Your task to perform on an android device: search for starred emails in the gmail app Image 0: 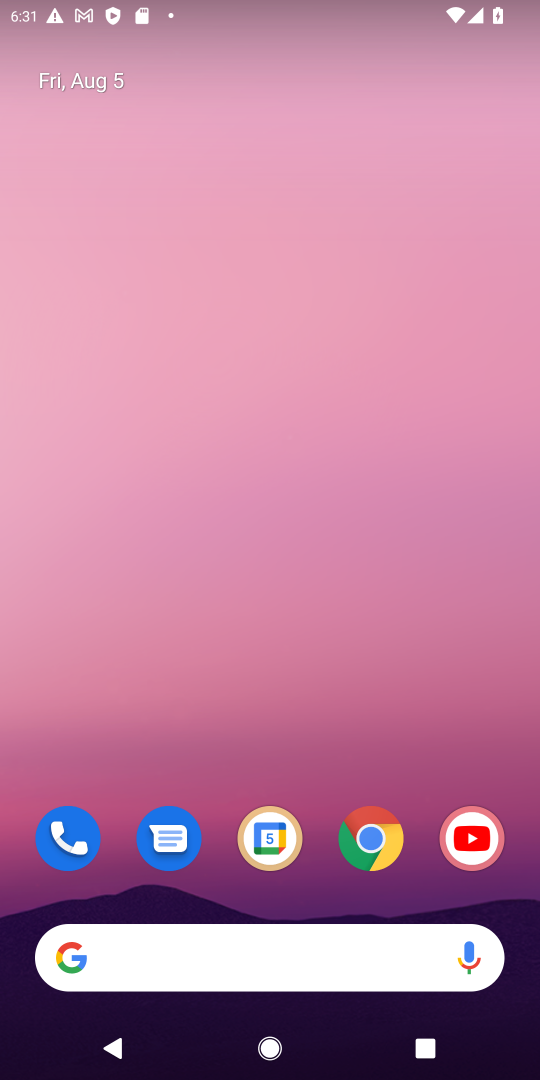
Step 0: press home button
Your task to perform on an android device: search for starred emails in the gmail app Image 1: 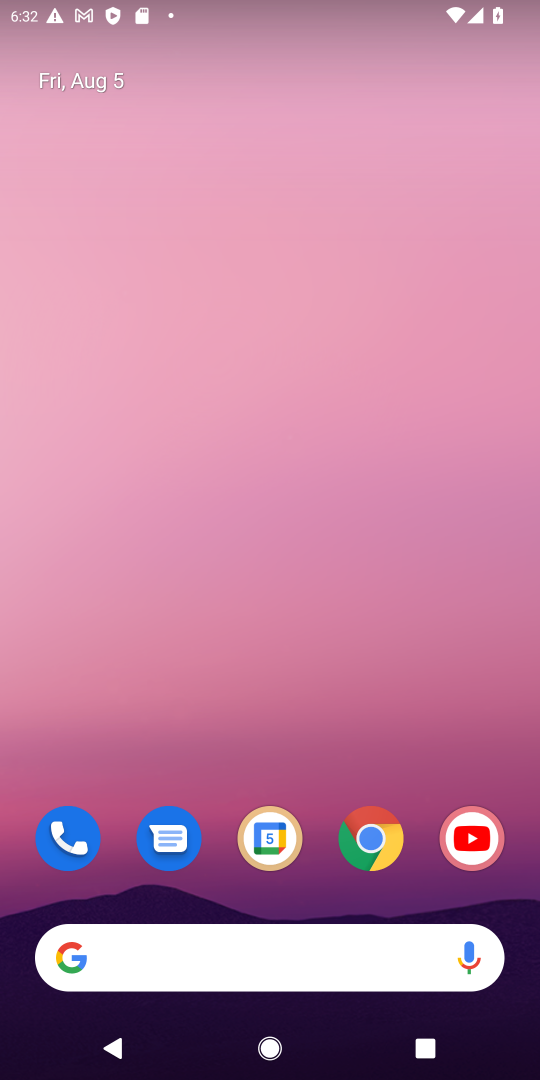
Step 1: drag from (326, 885) to (320, 120)
Your task to perform on an android device: search for starred emails in the gmail app Image 2: 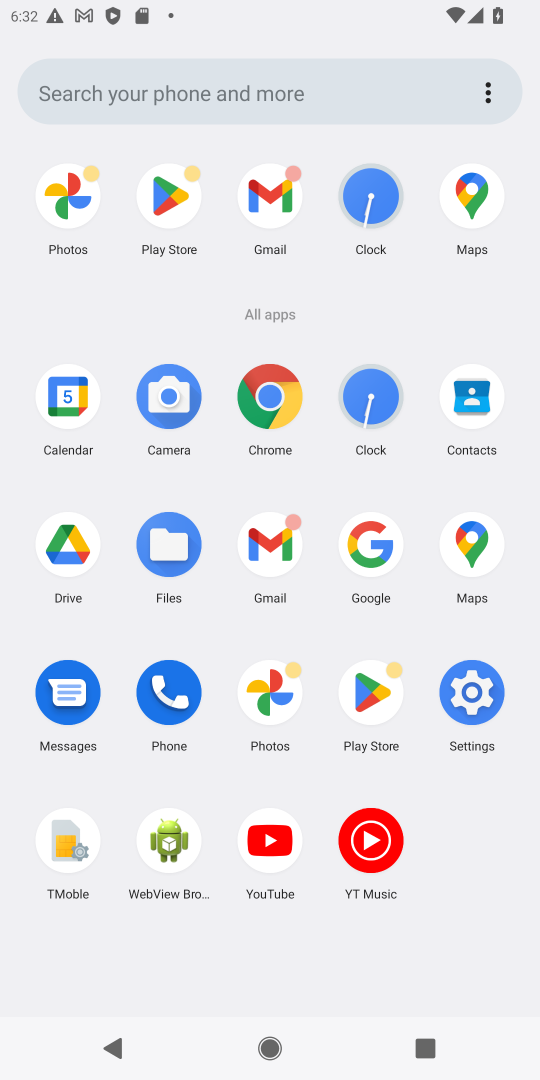
Step 2: click (275, 197)
Your task to perform on an android device: search for starred emails in the gmail app Image 3: 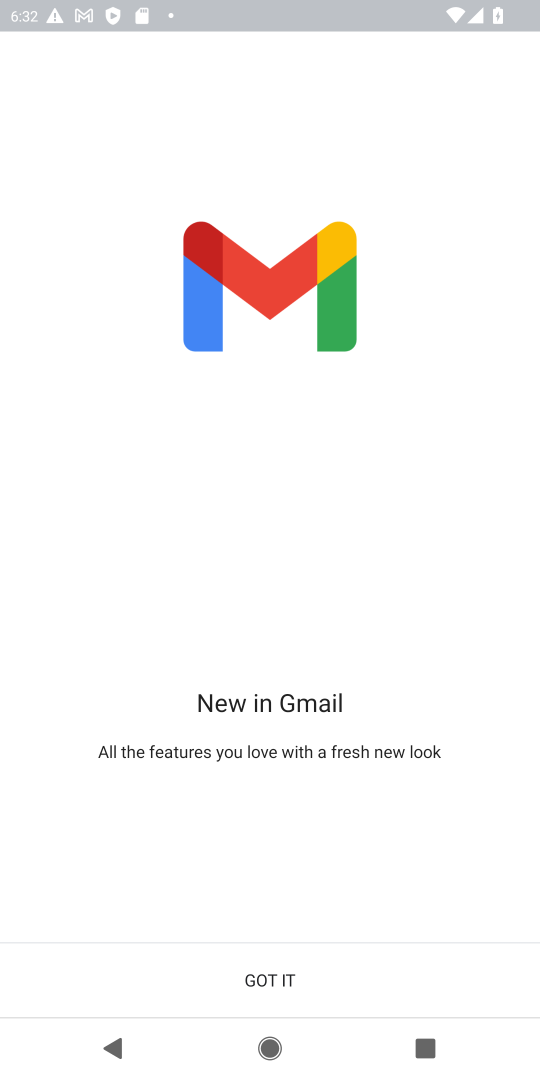
Step 3: click (282, 987)
Your task to perform on an android device: search for starred emails in the gmail app Image 4: 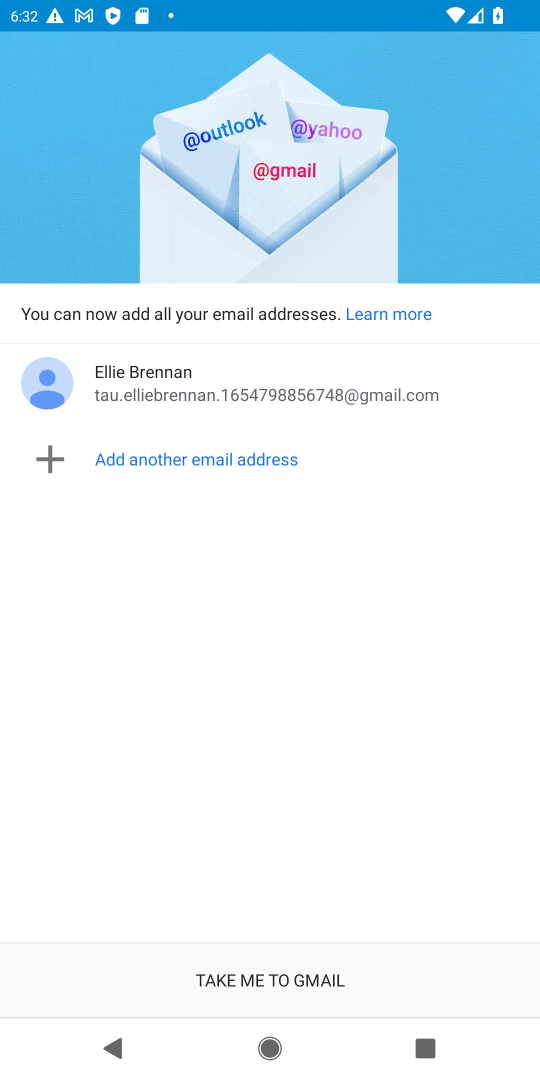
Step 4: click (261, 979)
Your task to perform on an android device: search for starred emails in the gmail app Image 5: 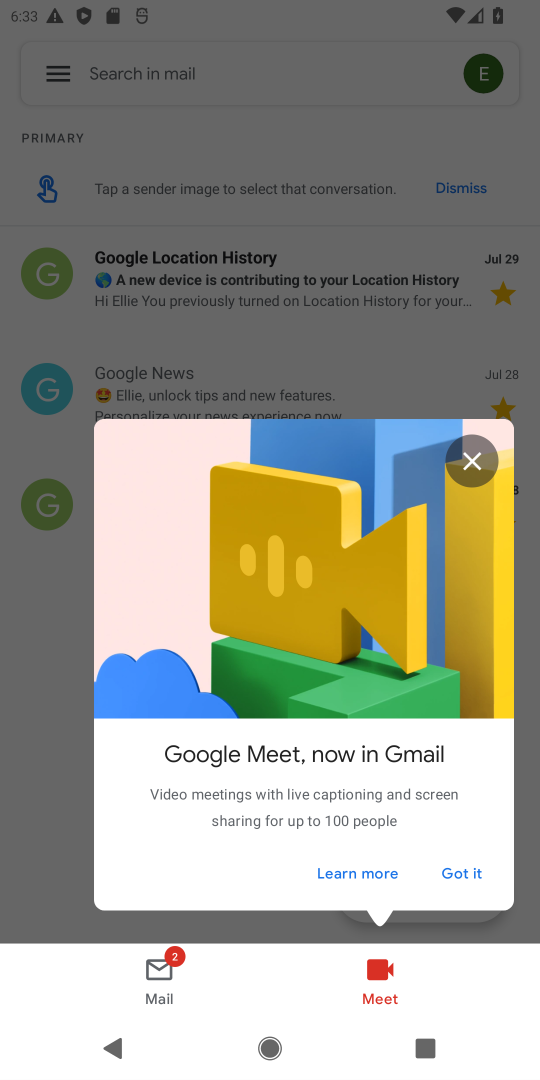
Step 5: click (477, 874)
Your task to perform on an android device: search for starred emails in the gmail app Image 6: 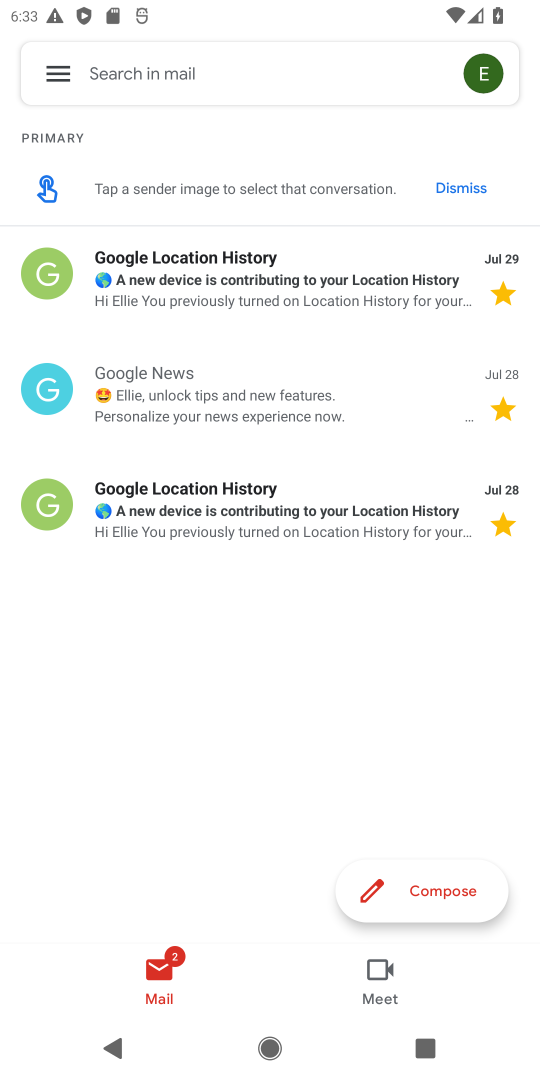
Step 6: click (78, 74)
Your task to perform on an android device: search for starred emails in the gmail app Image 7: 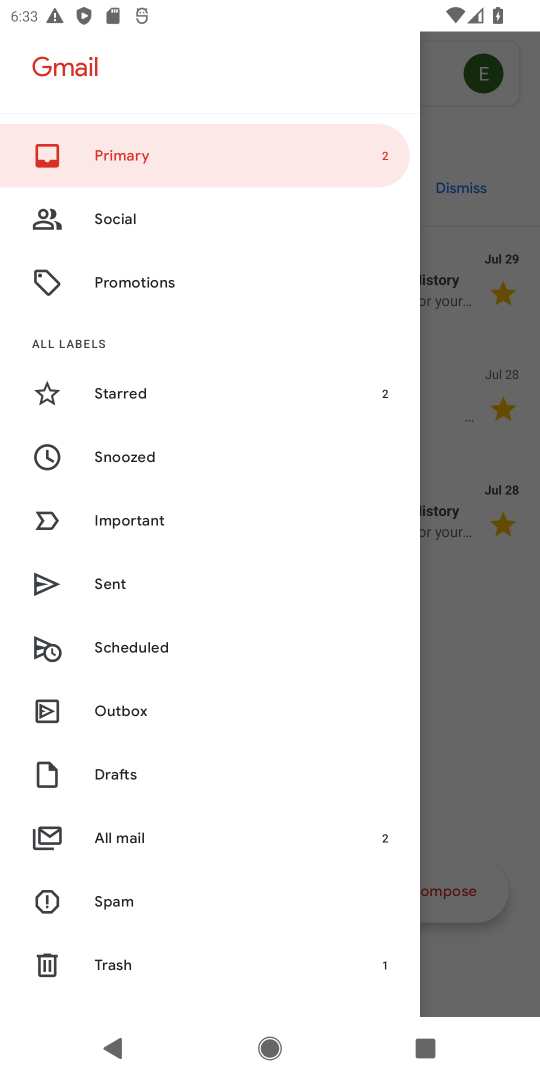
Step 7: click (117, 393)
Your task to perform on an android device: search for starred emails in the gmail app Image 8: 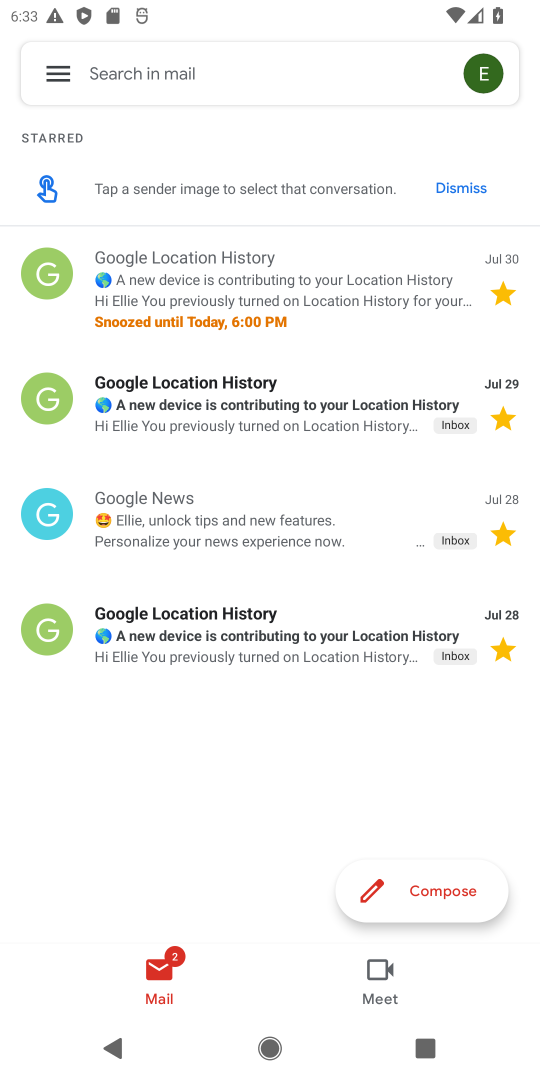
Step 8: task complete